Your task to perform on an android device: Open the map Image 0: 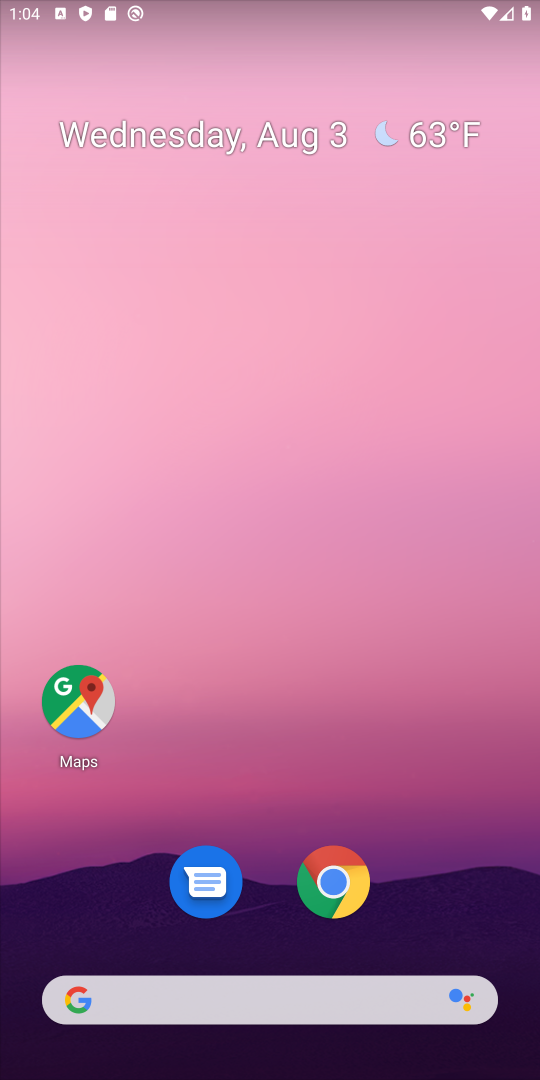
Step 0: press home button
Your task to perform on an android device: Open the map Image 1: 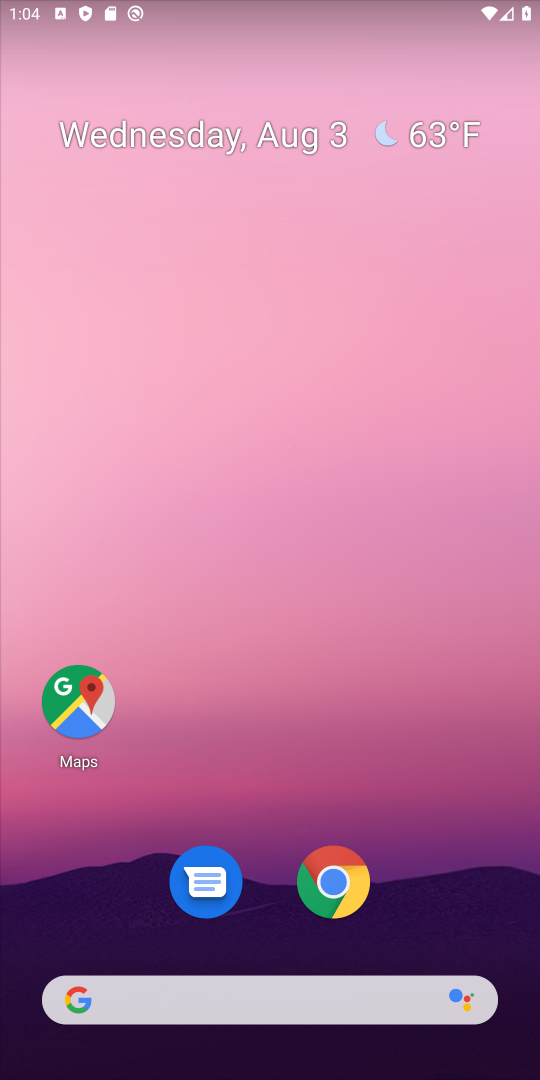
Step 1: drag from (321, 578) to (345, 16)
Your task to perform on an android device: Open the map Image 2: 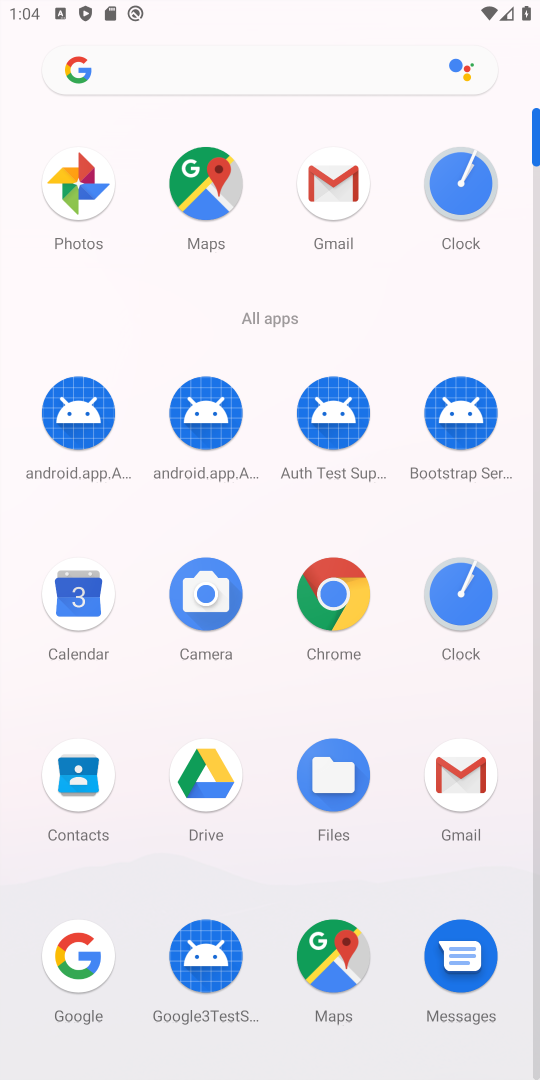
Step 2: click (217, 212)
Your task to perform on an android device: Open the map Image 3: 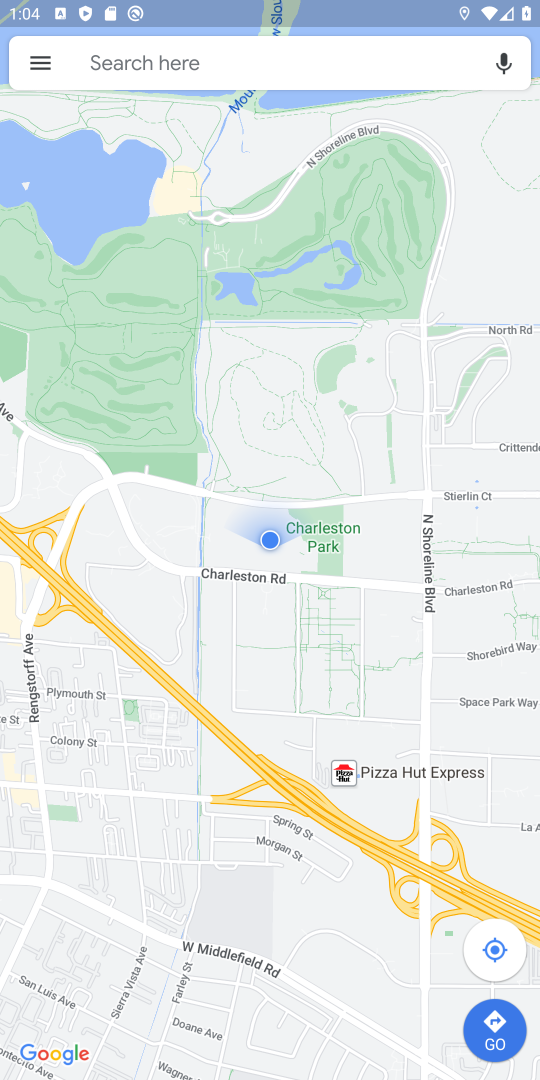
Step 3: task complete